Your task to perform on an android device: see tabs open on other devices in the chrome app Image 0: 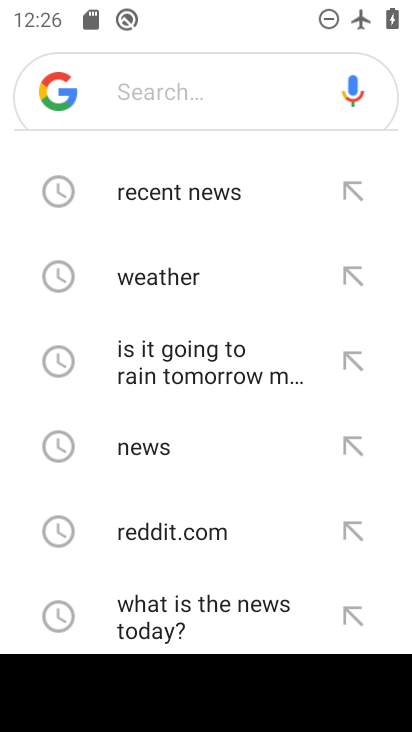
Step 0: press home button
Your task to perform on an android device: see tabs open on other devices in the chrome app Image 1: 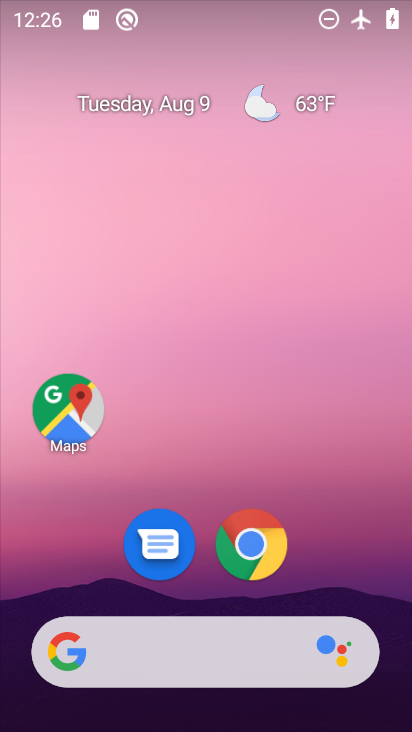
Step 1: click (252, 544)
Your task to perform on an android device: see tabs open on other devices in the chrome app Image 2: 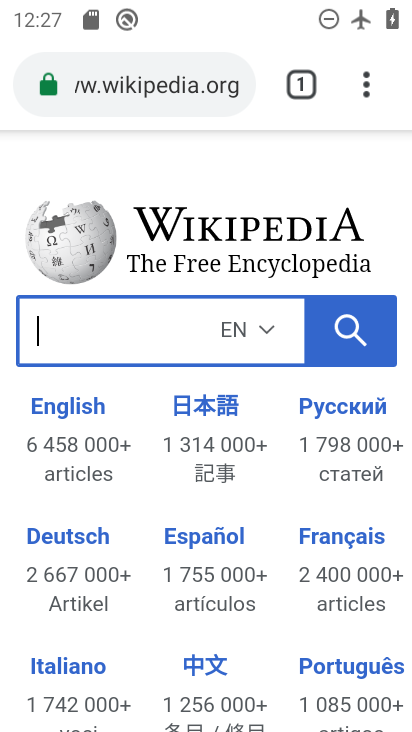
Step 2: click (367, 83)
Your task to perform on an android device: see tabs open on other devices in the chrome app Image 3: 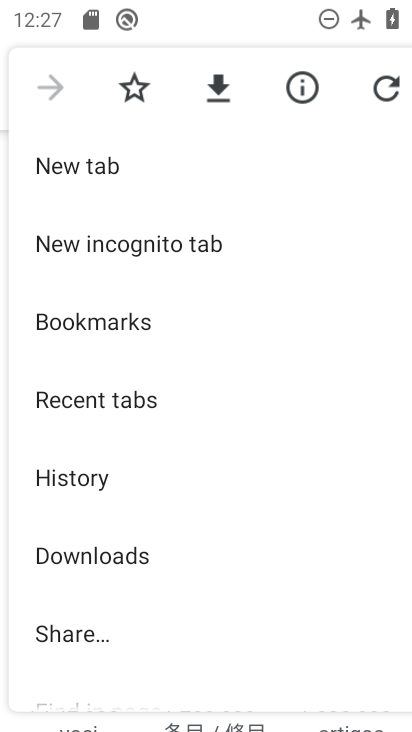
Step 3: click (136, 401)
Your task to perform on an android device: see tabs open on other devices in the chrome app Image 4: 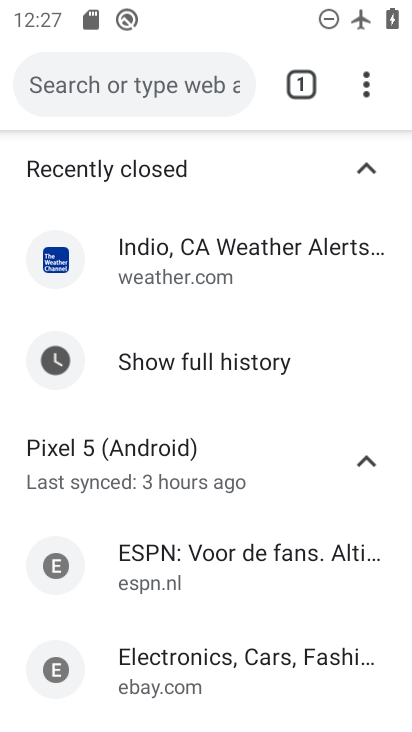
Step 4: task complete